Your task to perform on an android device: turn off javascript in the chrome app Image 0: 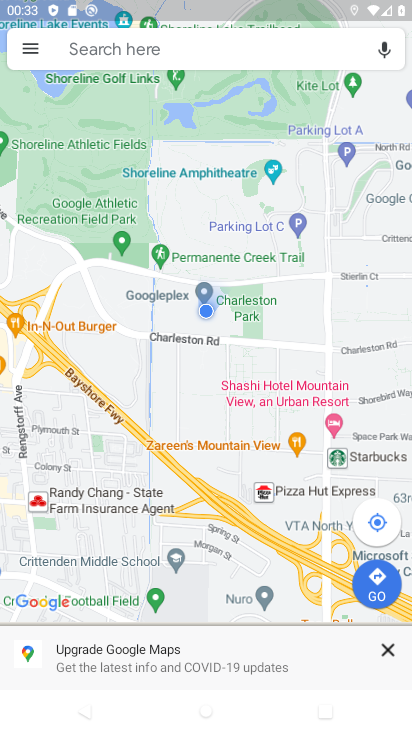
Step 0: press home button
Your task to perform on an android device: turn off javascript in the chrome app Image 1: 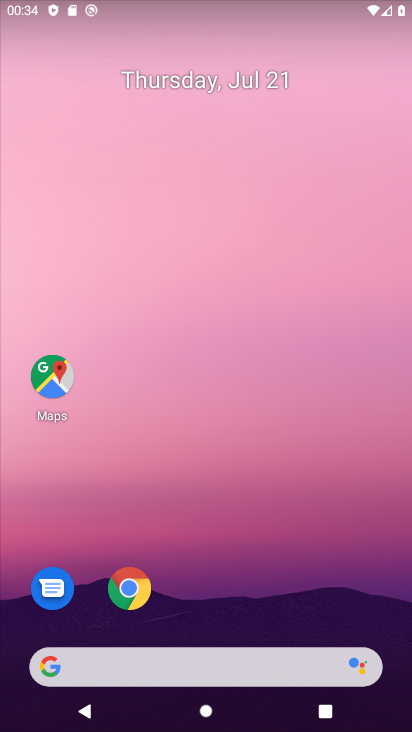
Step 1: click (135, 586)
Your task to perform on an android device: turn off javascript in the chrome app Image 2: 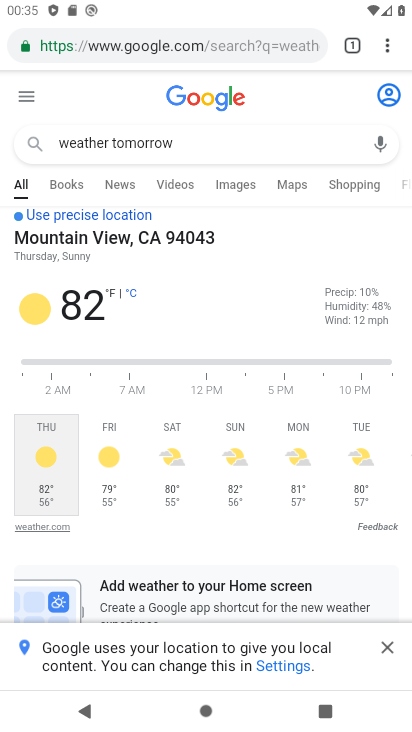
Step 2: click (393, 52)
Your task to perform on an android device: turn off javascript in the chrome app Image 3: 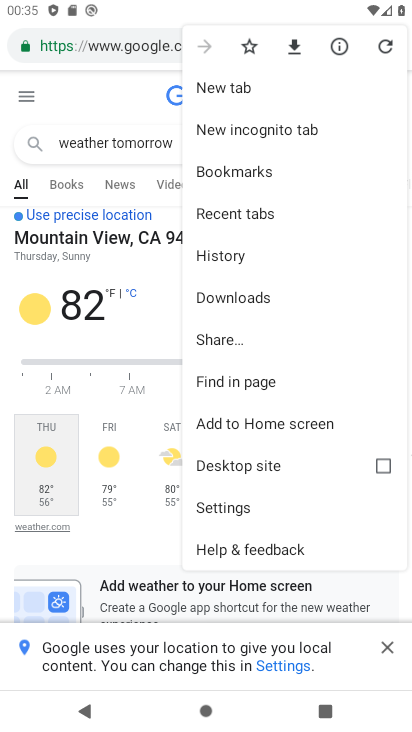
Step 3: click (290, 502)
Your task to perform on an android device: turn off javascript in the chrome app Image 4: 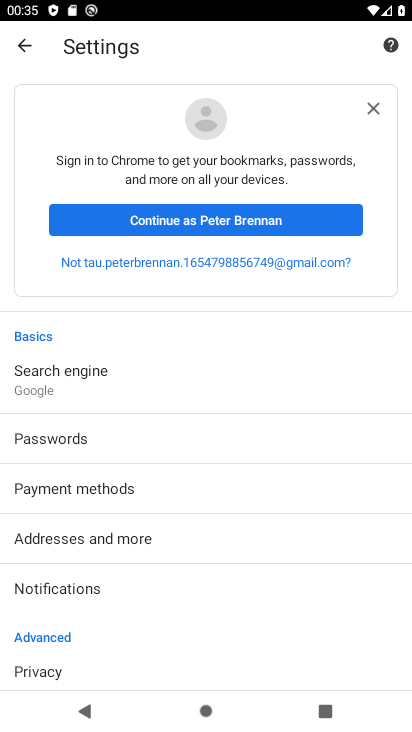
Step 4: drag from (230, 557) to (197, 400)
Your task to perform on an android device: turn off javascript in the chrome app Image 5: 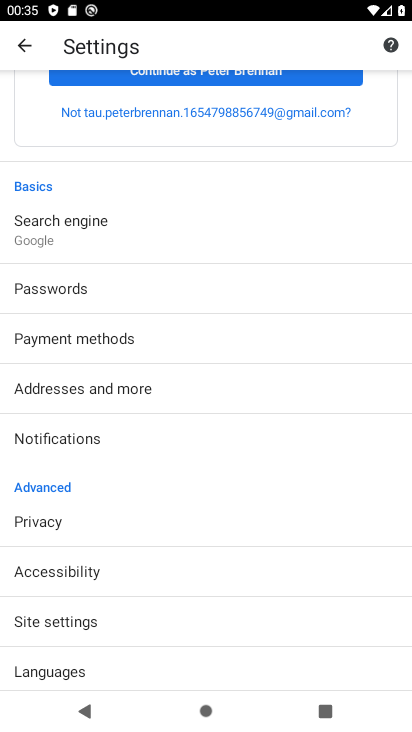
Step 5: click (102, 614)
Your task to perform on an android device: turn off javascript in the chrome app Image 6: 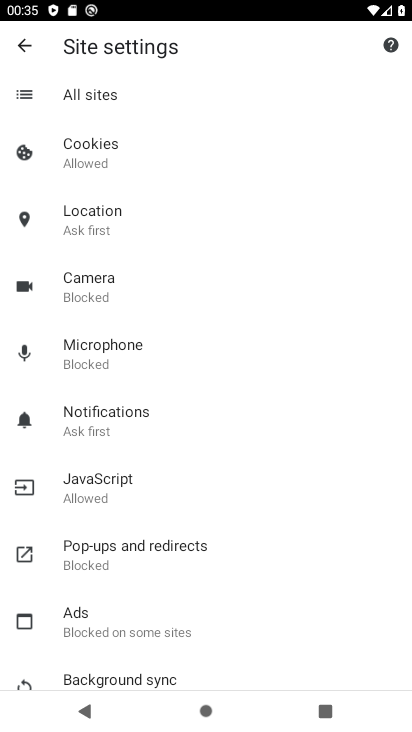
Step 6: click (154, 473)
Your task to perform on an android device: turn off javascript in the chrome app Image 7: 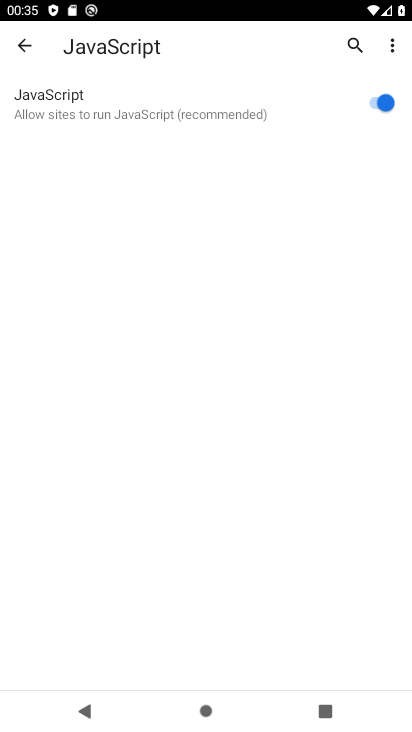
Step 7: click (378, 105)
Your task to perform on an android device: turn off javascript in the chrome app Image 8: 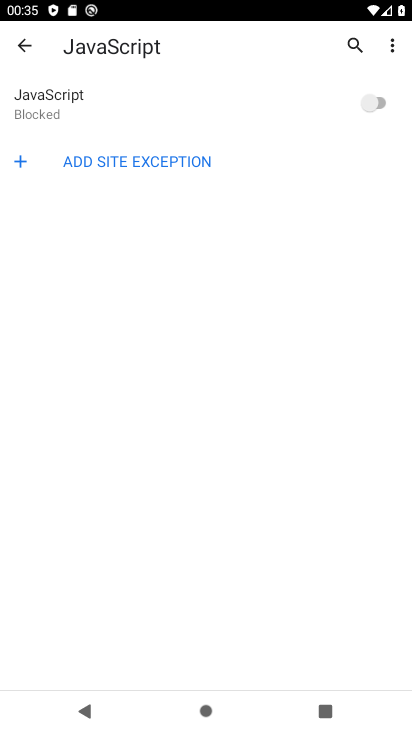
Step 8: task complete